Your task to perform on an android device: see sites visited before in the chrome app Image 0: 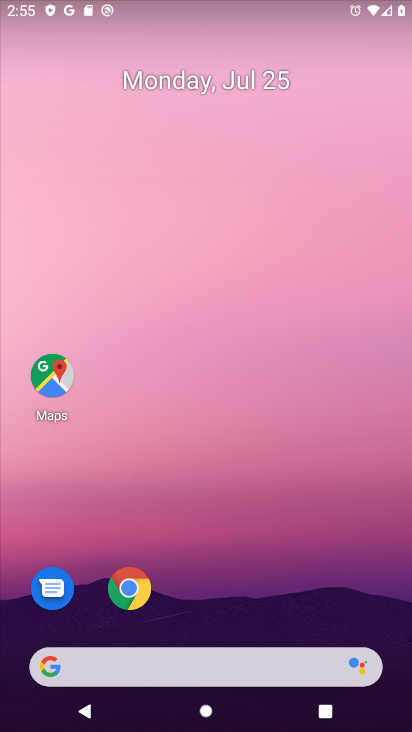
Step 0: click (129, 582)
Your task to perform on an android device: see sites visited before in the chrome app Image 1: 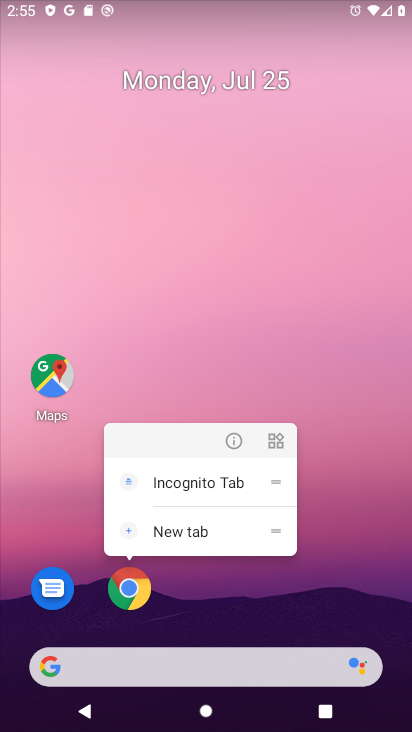
Step 1: click (124, 580)
Your task to perform on an android device: see sites visited before in the chrome app Image 2: 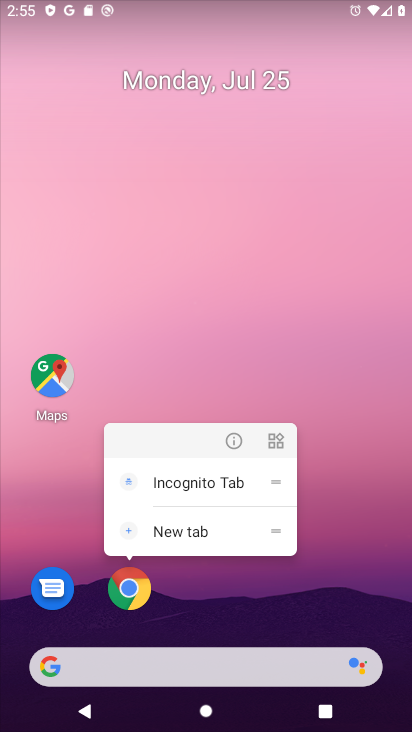
Step 2: click (124, 580)
Your task to perform on an android device: see sites visited before in the chrome app Image 3: 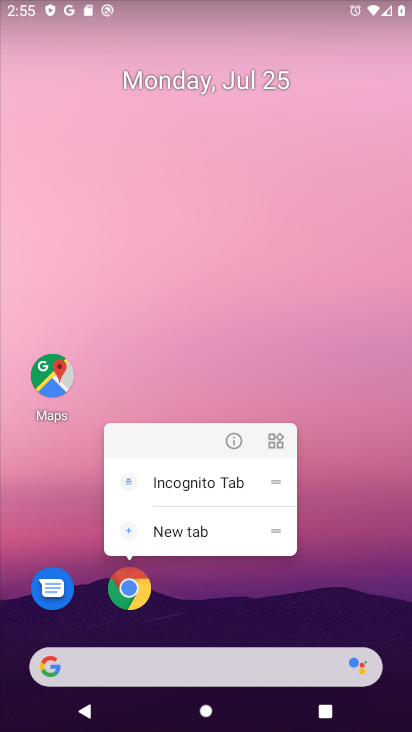
Step 3: click (187, 620)
Your task to perform on an android device: see sites visited before in the chrome app Image 4: 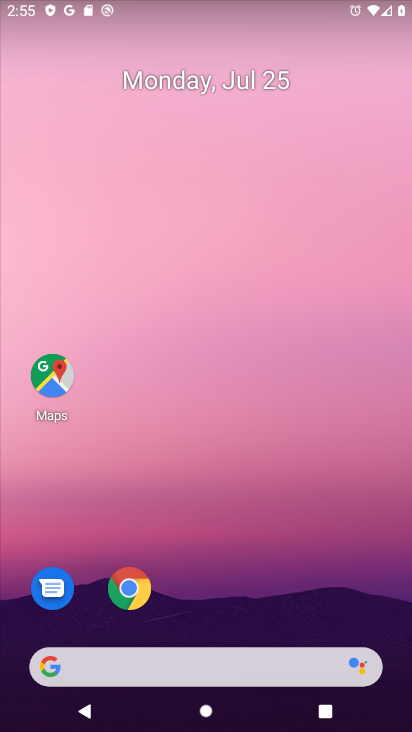
Step 4: drag from (301, 179) to (301, 49)
Your task to perform on an android device: see sites visited before in the chrome app Image 5: 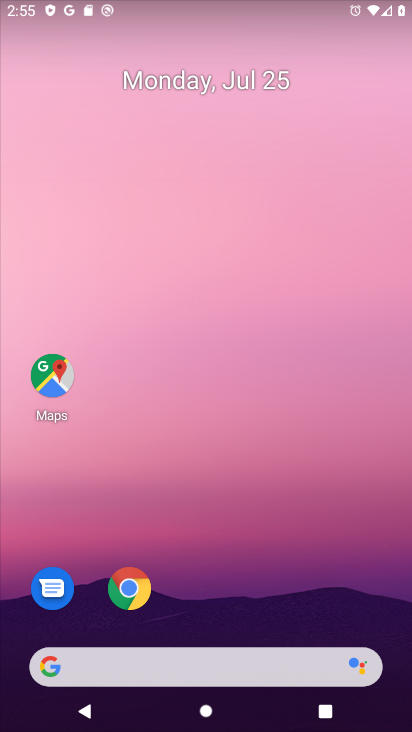
Step 5: drag from (222, 632) to (226, 23)
Your task to perform on an android device: see sites visited before in the chrome app Image 6: 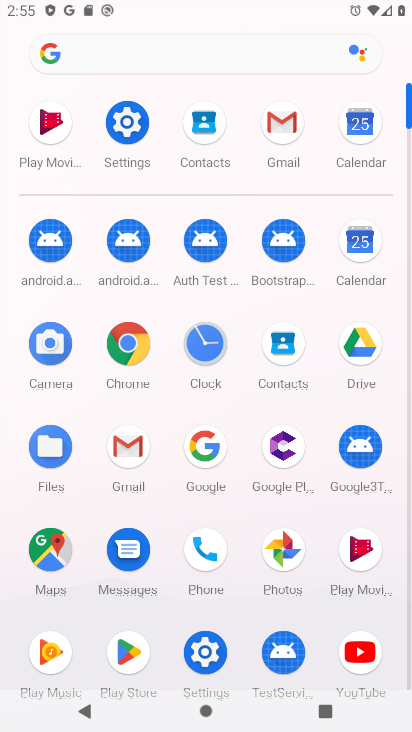
Step 6: click (123, 336)
Your task to perform on an android device: see sites visited before in the chrome app Image 7: 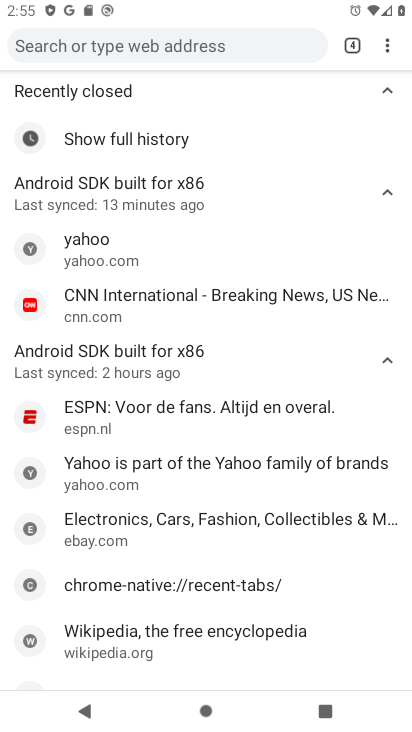
Step 7: click (384, 36)
Your task to perform on an android device: see sites visited before in the chrome app Image 8: 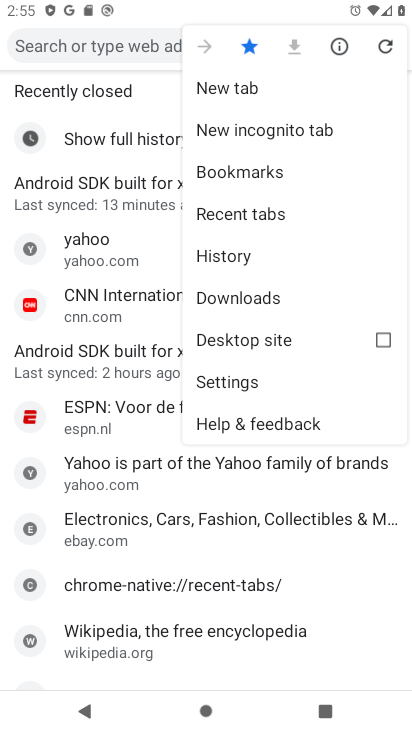
Step 8: click (263, 252)
Your task to perform on an android device: see sites visited before in the chrome app Image 9: 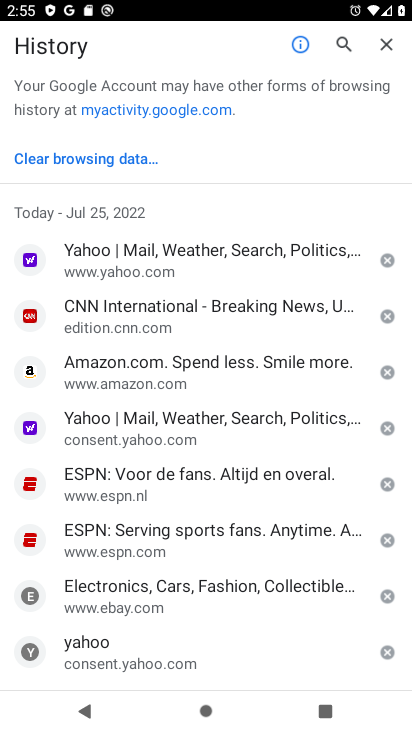
Step 9: task complete